Your task to perform on an android device: remove spam from my inbox in the gmail app Image 0: 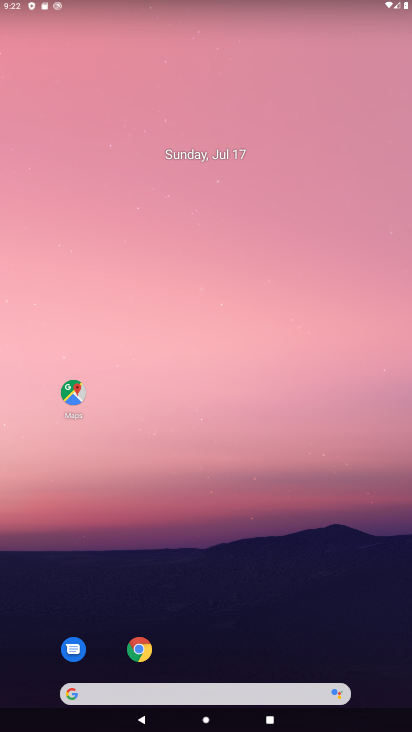
Step 0: drag from (49, 630) to (150, 94)
Your task to perform on an android device: remove spam from my inbox in the gmail app Image 1: 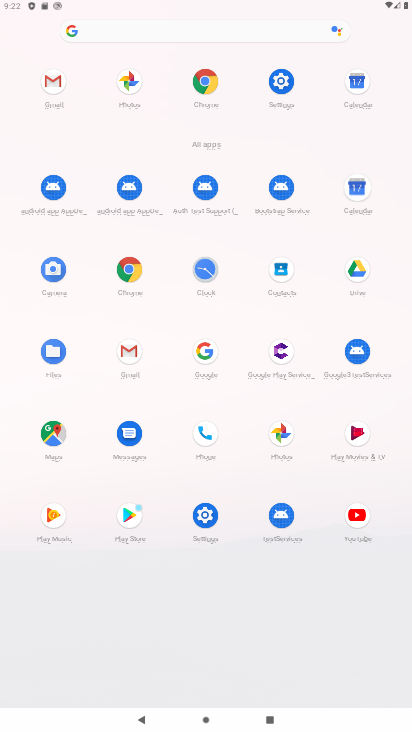
Step 1: click (51, 92)
Your task to perform on an android device: remove spam from my inbox in the gmail app Image 2: 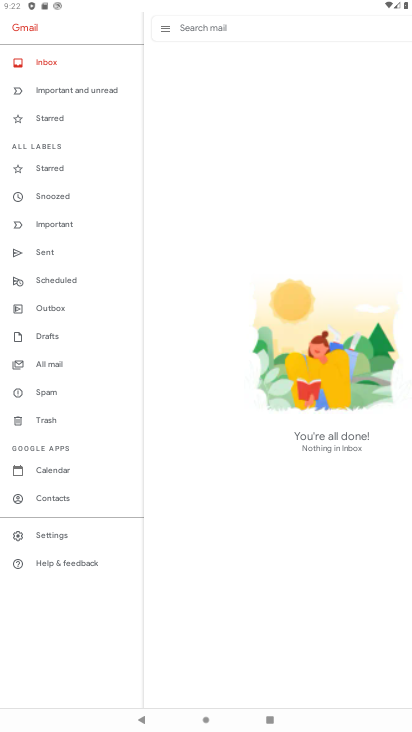
Step 2: click (55, 391)
Your task to perform on an android device: remove spam from my inbox in the gmail app Image 3: 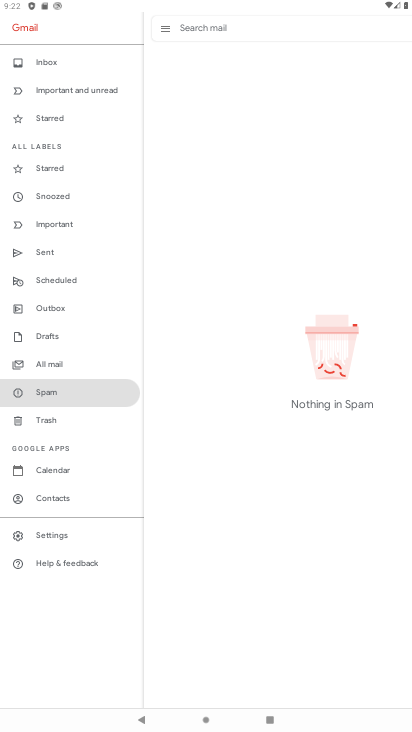
Step 3: click (90, 389)
Your task to perform on an android device: remove spam from my inbox in the gmail app Image 4: 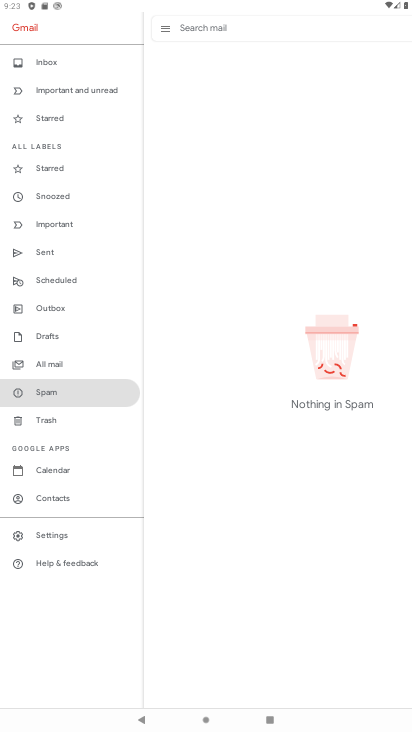
Step 4: task complete